Your task to perform on an android device: turn off airplane mode Image 0: 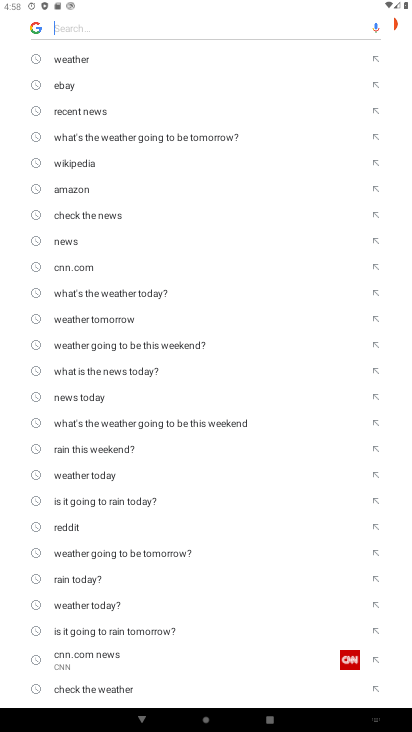
Step 0: press home button
Your task to perform on an android device: turn off airplane mode Image 1: 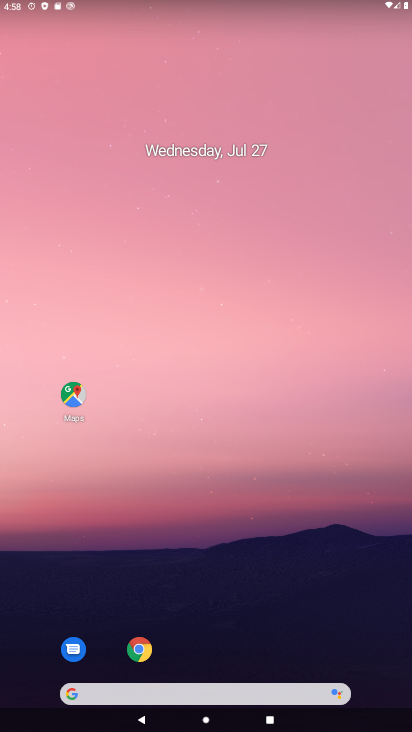
Step 1: drag from (167, 690) to (148, 23)
Your task to perform on an android device: turn off airplane mode Image 2: 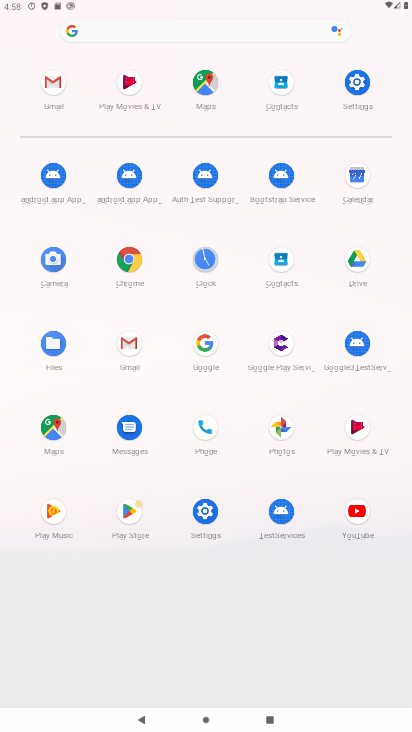
Step 2: click (358, 82)
Your task to perform on an android device: turn off airplane mode Image 3: 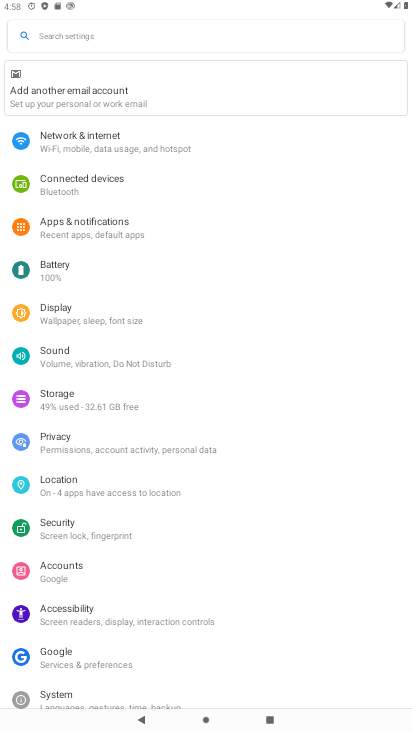
Step 3: click (75, 141)
Your task to perform on an android device: turn off airplane mode Image 4: 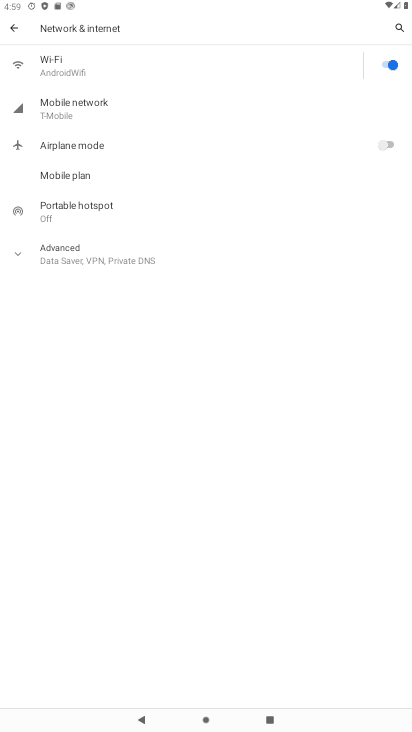
Step 4: task complete